Your task to perform on an android device: turn off picture-in-picture Image 0: 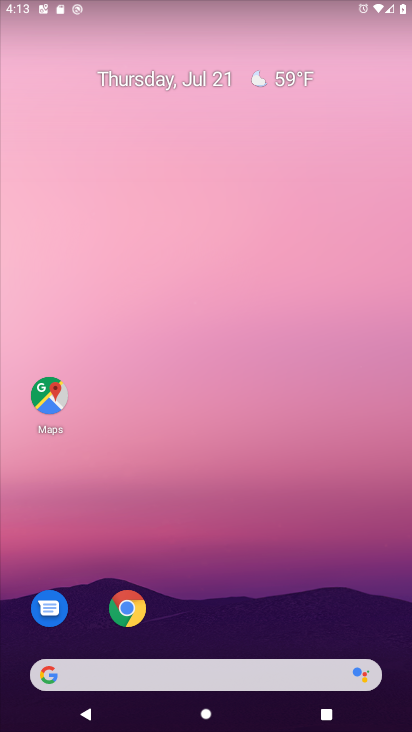
Step 0: drag from (237, 666) to (412, 174)
Your task to perform on an android device: turn off picture-in-picture Image 1: 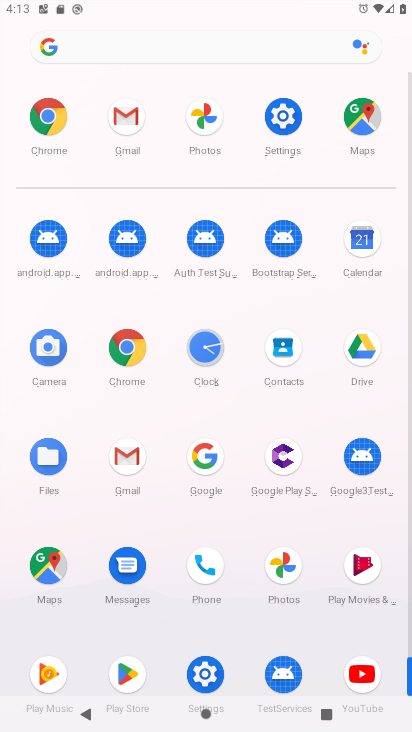
Step 1: click (281, 111)
Your task to perform on an android device: turn off picture-in-picture Image 2: 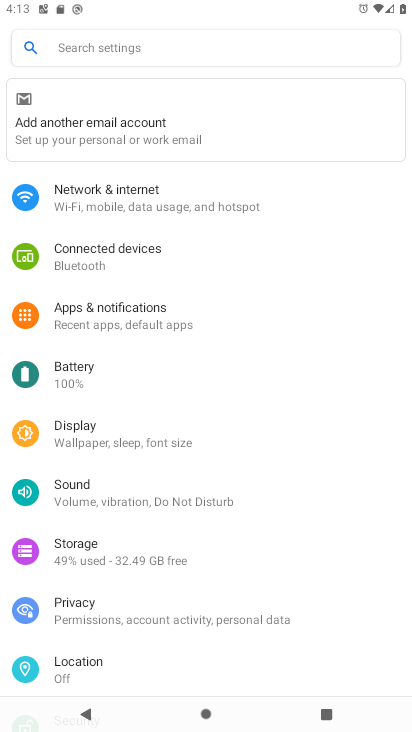
Step 2: drag from (148, 648) to (159, 489)
Your task to perform on an android device: turn off picture-in-picture Image 3: 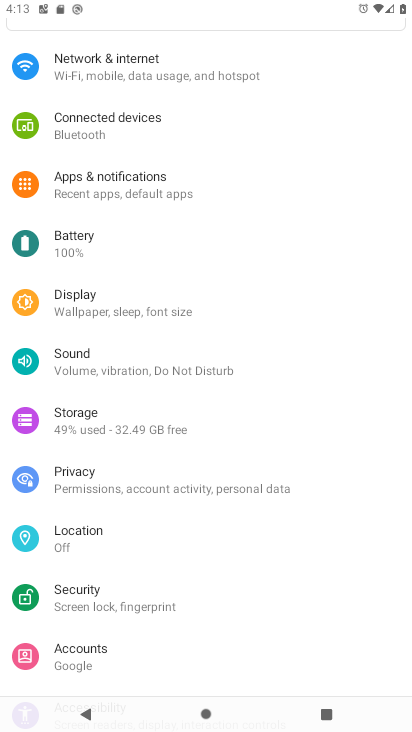
Step 3: click (147, 190)
Your task to perform on an android device: turn off picture-in-picture Image 4: 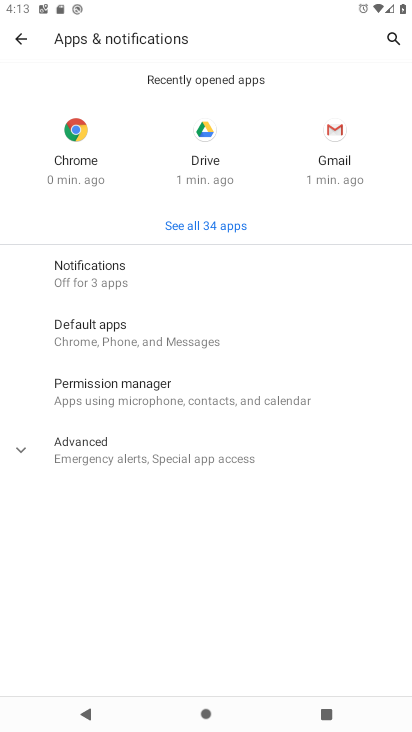
Step 4: click (151, 457)
Your task to perform on an android device: turn off picture-in-picture Image 5: 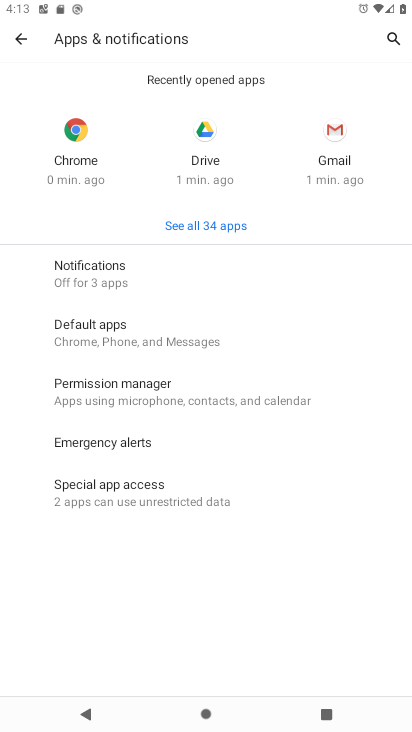
Step 5: click (121, 492)
Your task to perform on an android device: turn off picture-in-picture Image 6: 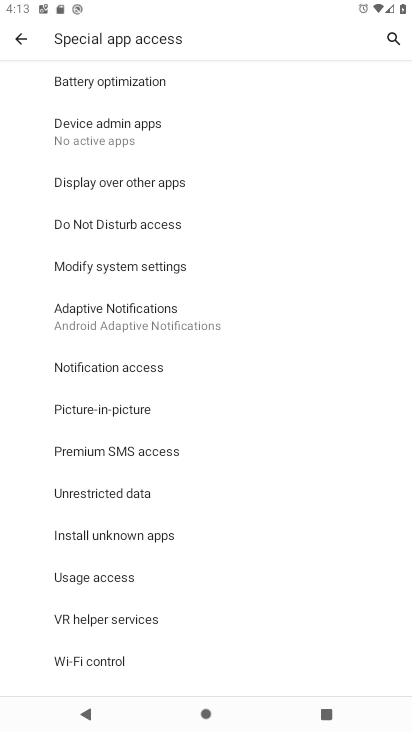
Step 6: click (123, 411)
Your task to perform on an android device: turn off picture-in-picture Image 7: 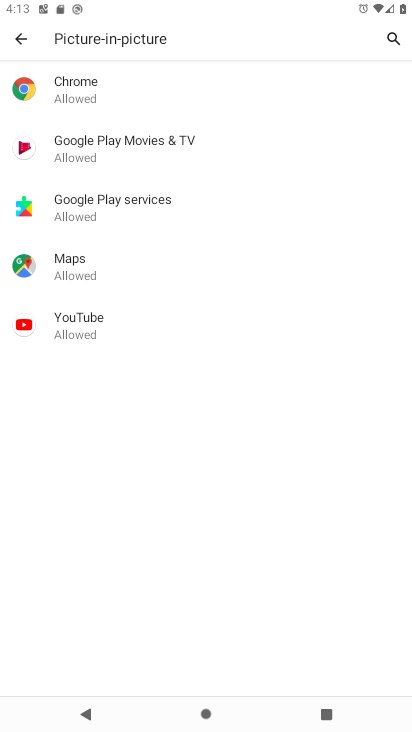
Step 7: click (76, 88)
Your task to perform on an android device: turn off picture-in-picture Image 8: 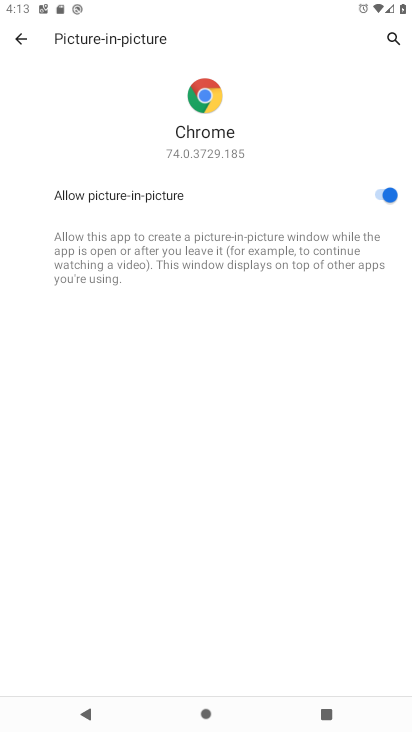
Step 8: click (378, 195)
Your task to perform on an android device: turn off picture-in-picture Image 9: 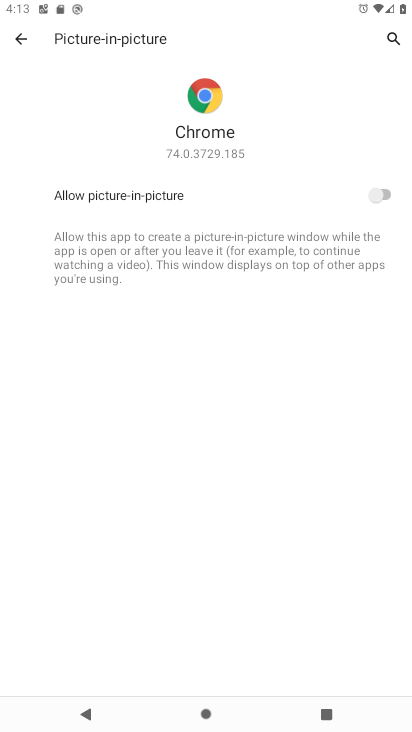
Step 9: press back button
Your task to perform on an android device: turn off picture-in-picture Image 10: 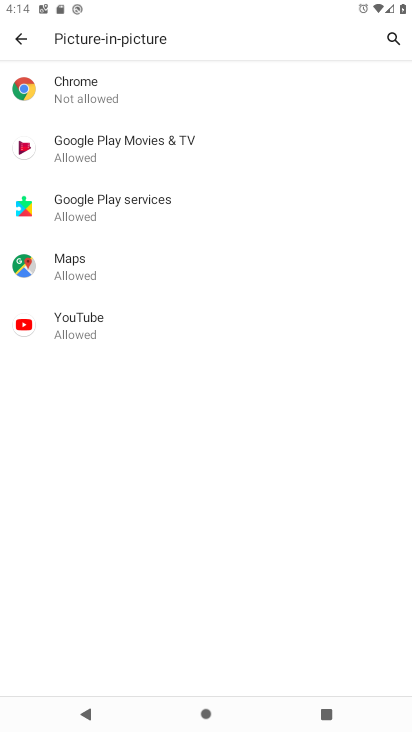
Step 10: click (126, 154)
Your task to perform on an android device: turn off picture-in-picture Image 11: 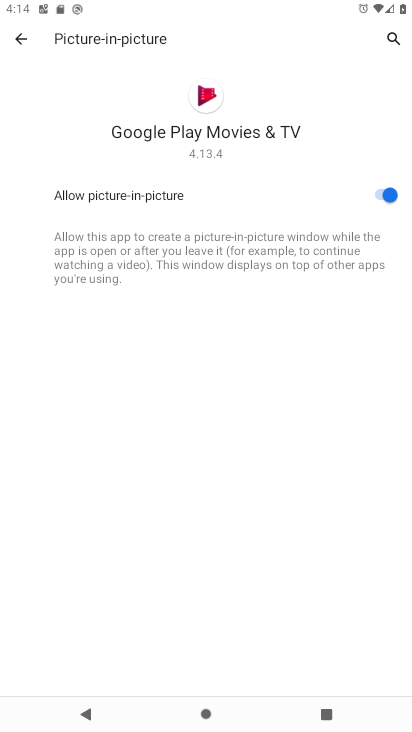
Step 11: click (379, 194)
Your task to perform on an android device: turn off picture-in-picture Image 12: 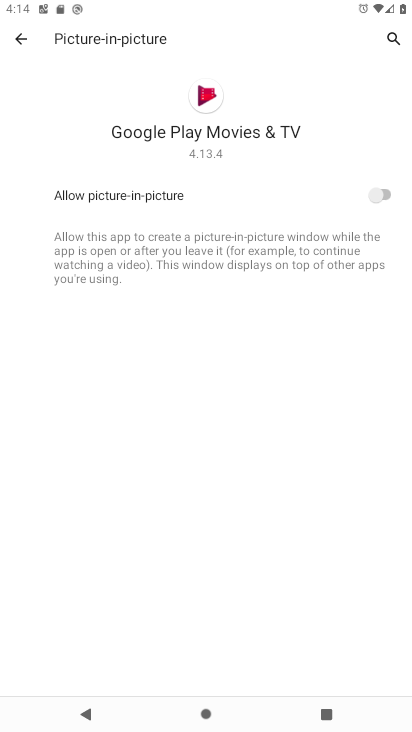
Step 12: press back button
Your task to perform on an android device: turn off picture-in-picture Image 13: 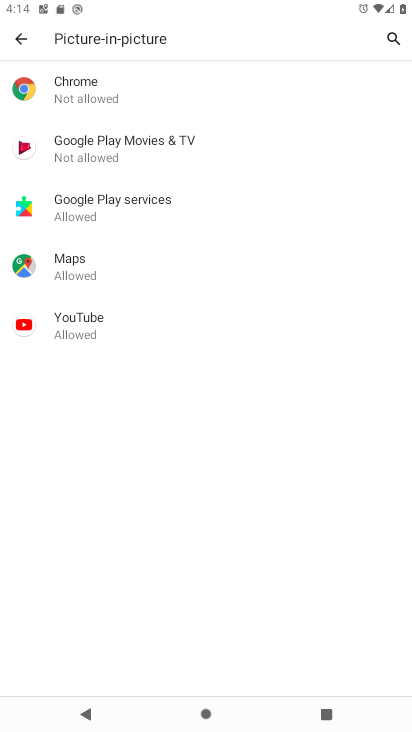
Step 13: click (132, 193)
Your task to perform on an android device: turn off picture-in-picture Image 14: 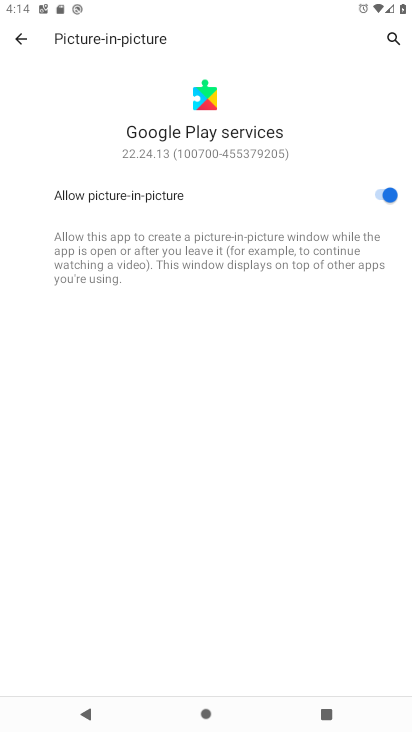
Step 14: click (384, 196)
Your task to perform on an android device: turn off picture-in-picture Image 15: 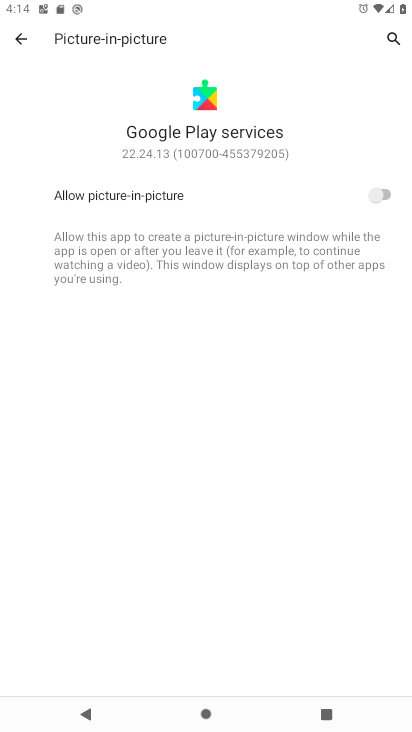
Step 15: press back button
Your task to perform on an android device: turn off picture-in-picture Image 16: 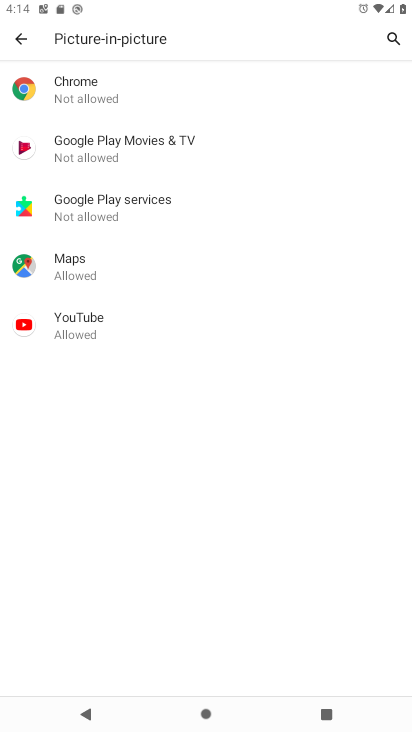
Step 16: click (108, 279)
Your task to perform on an android device: turn off picture-in-picture Image 17: 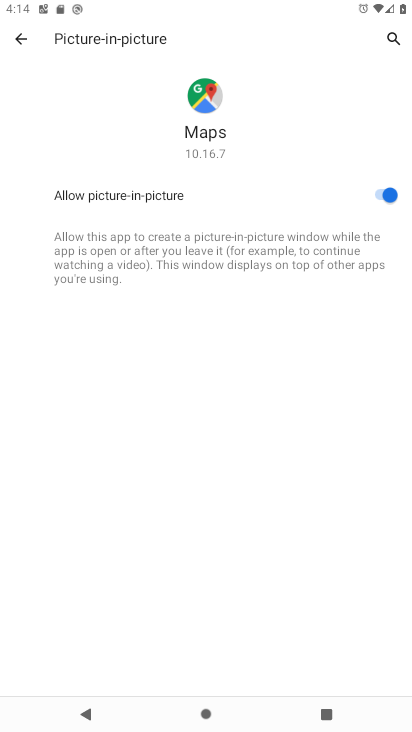
Step 17: click (376, 192)
Your task to perform on an android device: turn off picture-in-picture Image 18: 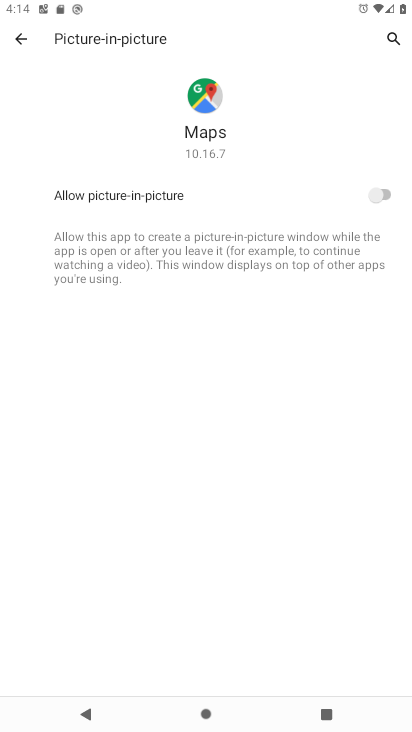
Step 18: press back button
Your task to perform on an android device: turn off picture-in-picture Image 19: 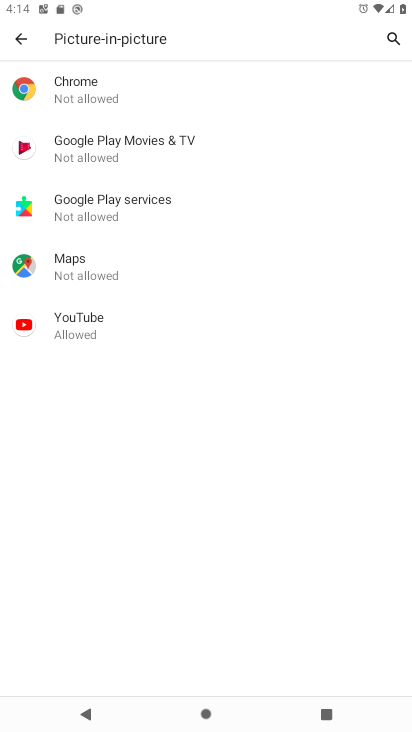
Step 19: click (131, 329)
Your task to perform on an android device: turn off picture-in-picture Image 20: 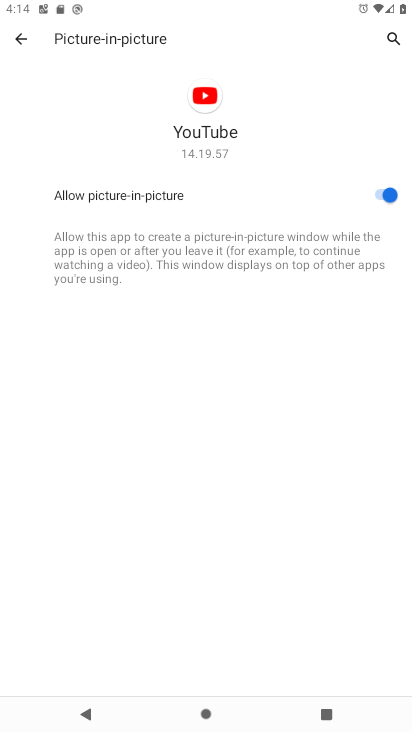
Step 20: click (385, 193)
Your task to perform on an android device: turn off picture-in-picture Image 21: 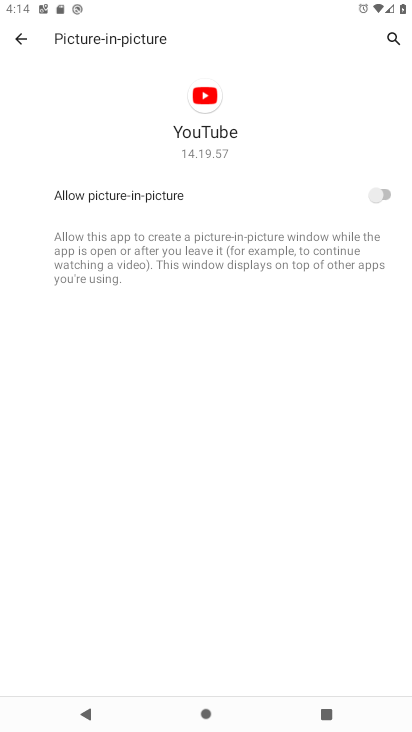
Step 21: task complete